Your task to perform on an android device: Add "logitech g910" to the cart on ebay Image 0: 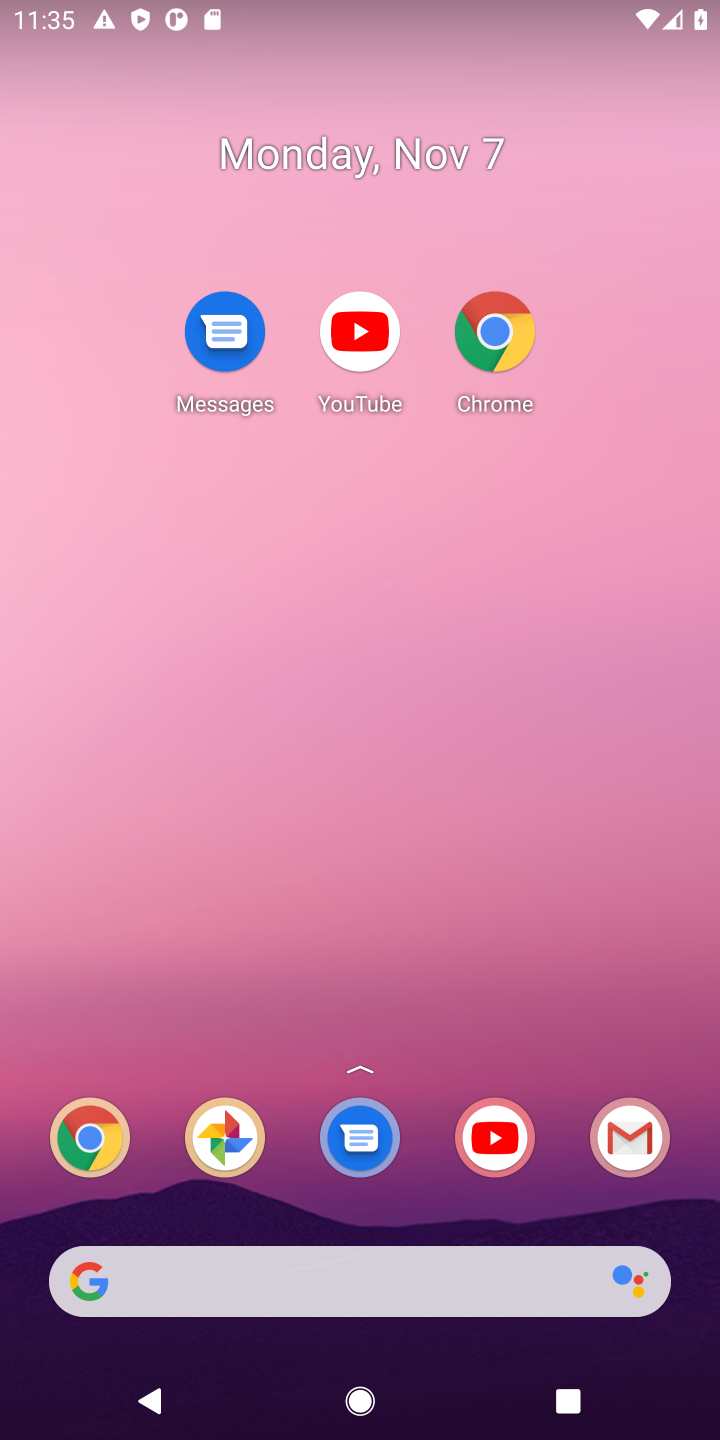
Step 0: drag from (424, 1124) to (454, 401)
Your task to perform on an android device: Add "logitech g910" to the cart on ebay Image 1: 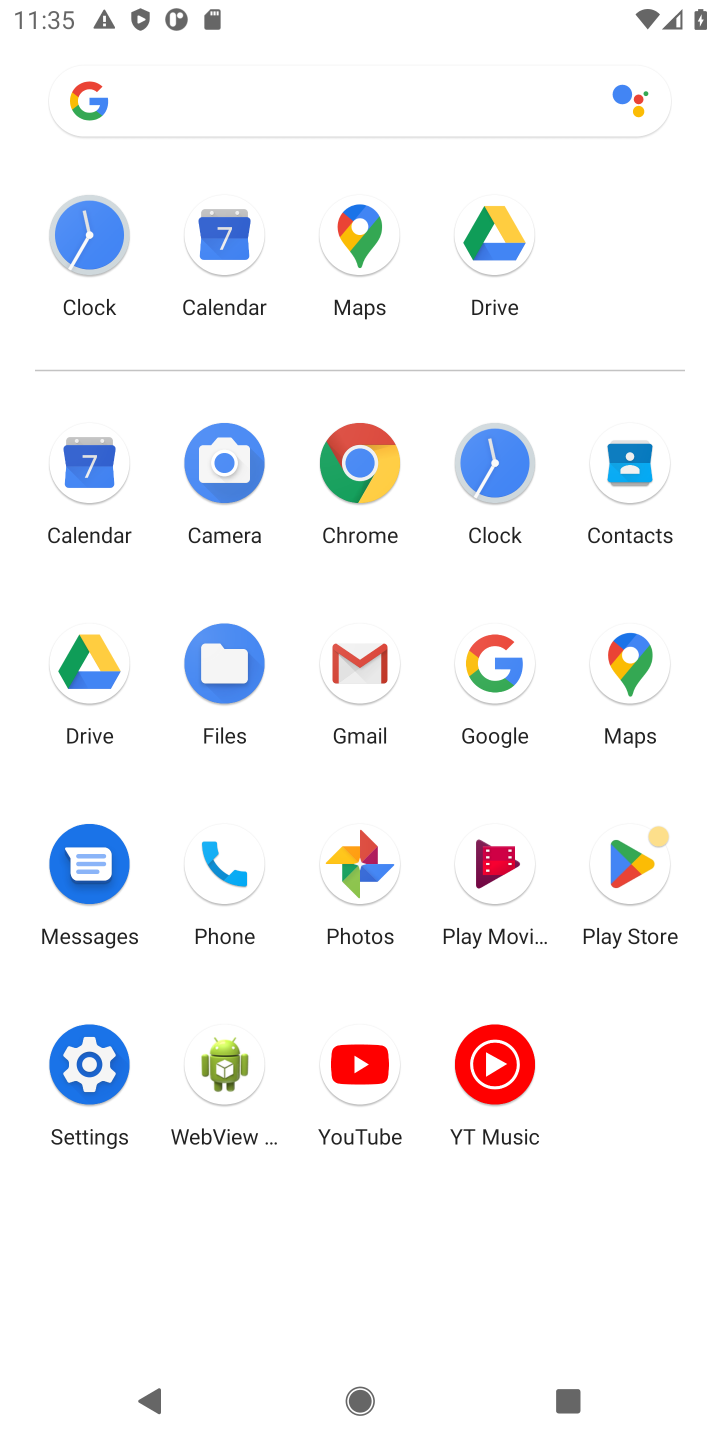
Step 1: click (362, 463)
Your task to perform on an android device: Add "logitech g910" to the cart on ebay Image 2: 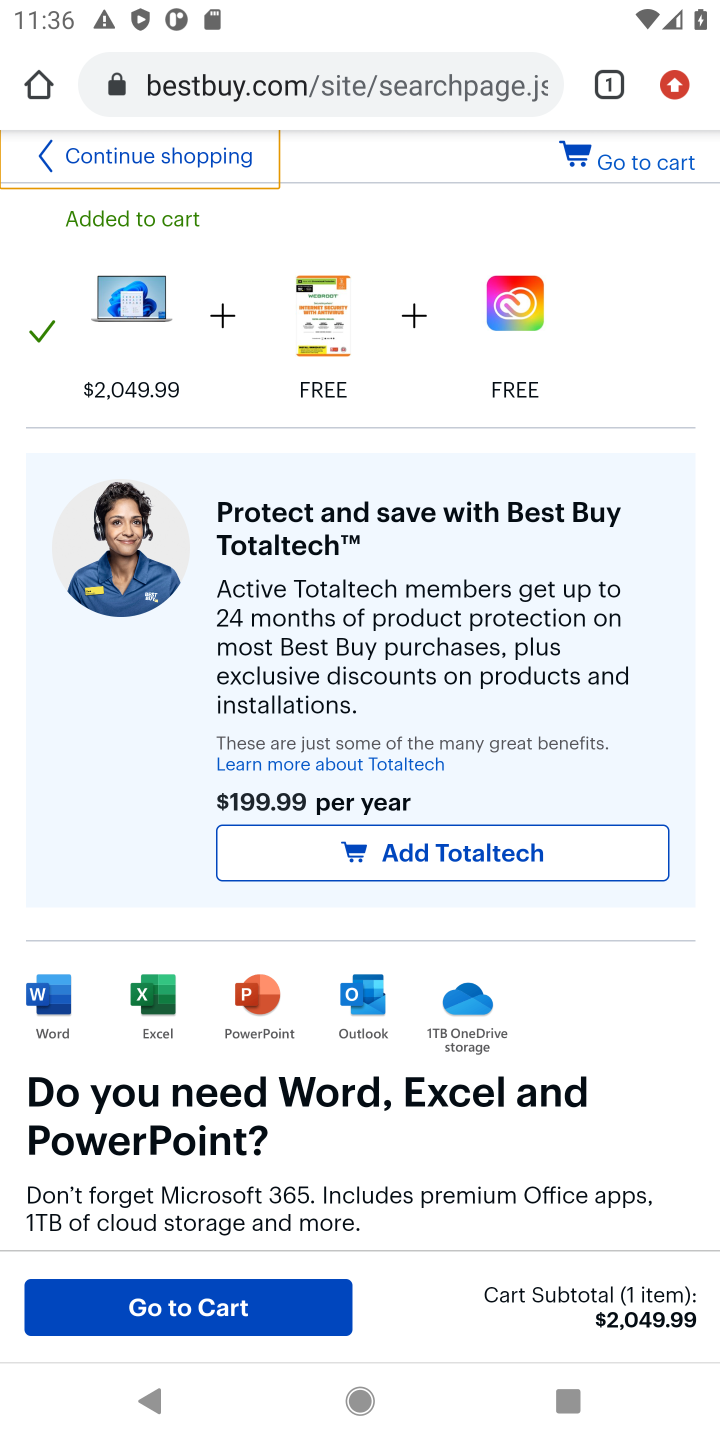
Step 2: click (396, 73)
Your task to perform on an android device: Add "logitech g910" to the cart on ebay Image 3: 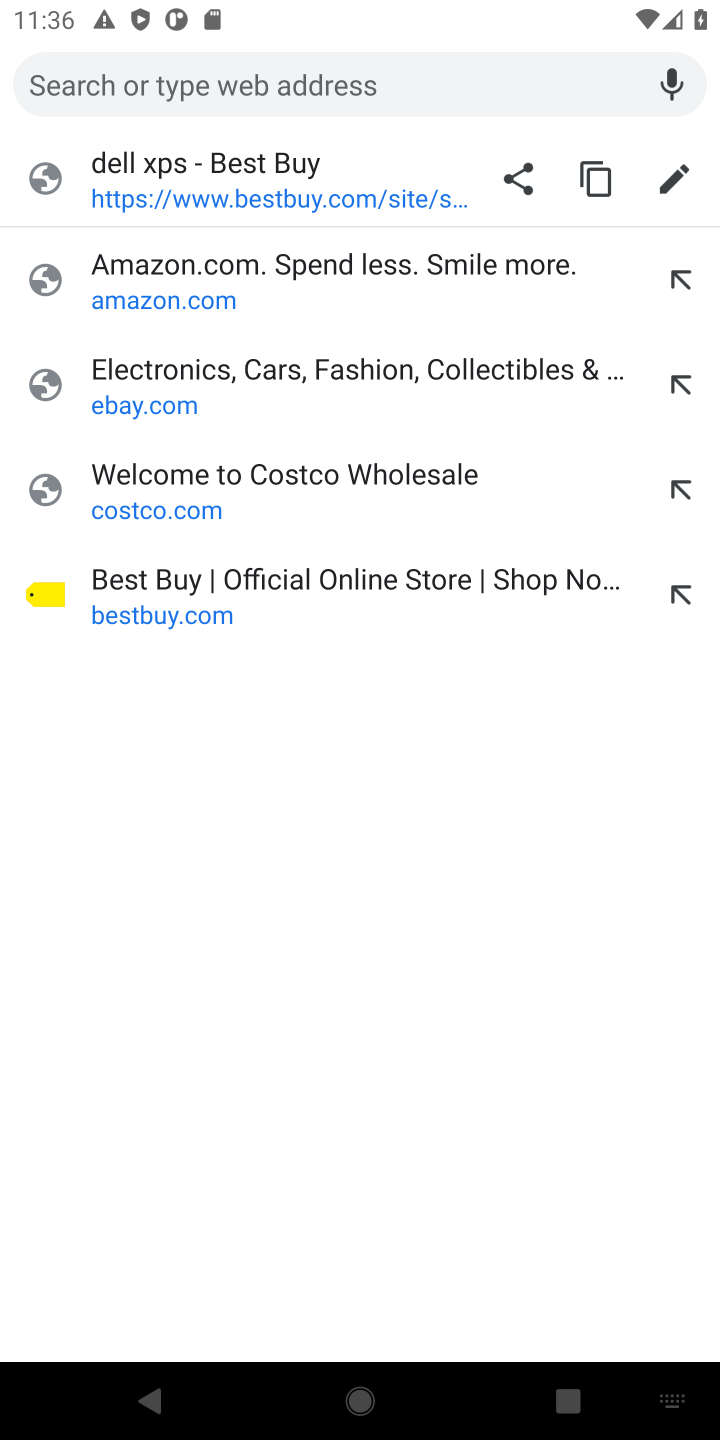
Step 3: type "ebay.com"
Your task to perform on an android device: Add "logitech g910" to the cart on ebay Image 4: 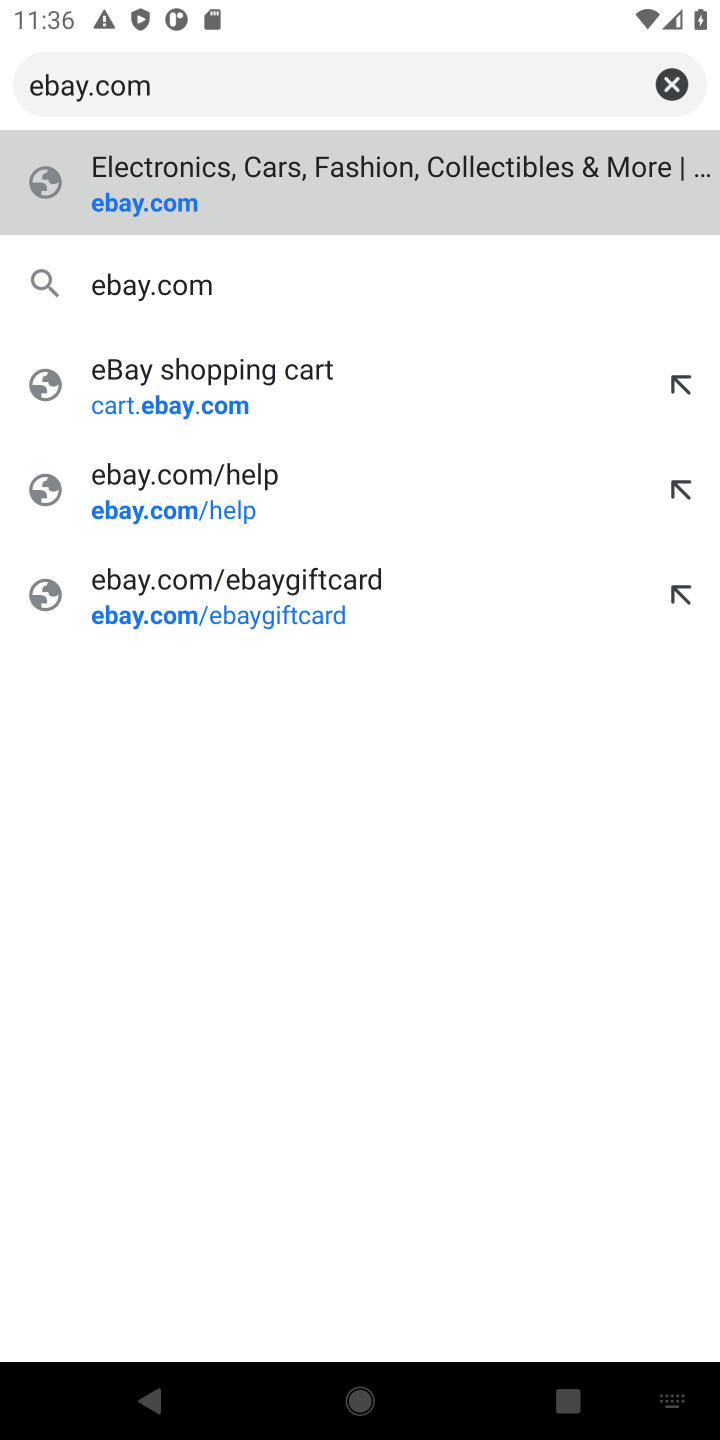
Step 4: press enter
Your task to perform on an android device: Add "logitech g910" to the cart on ebay Image 5: 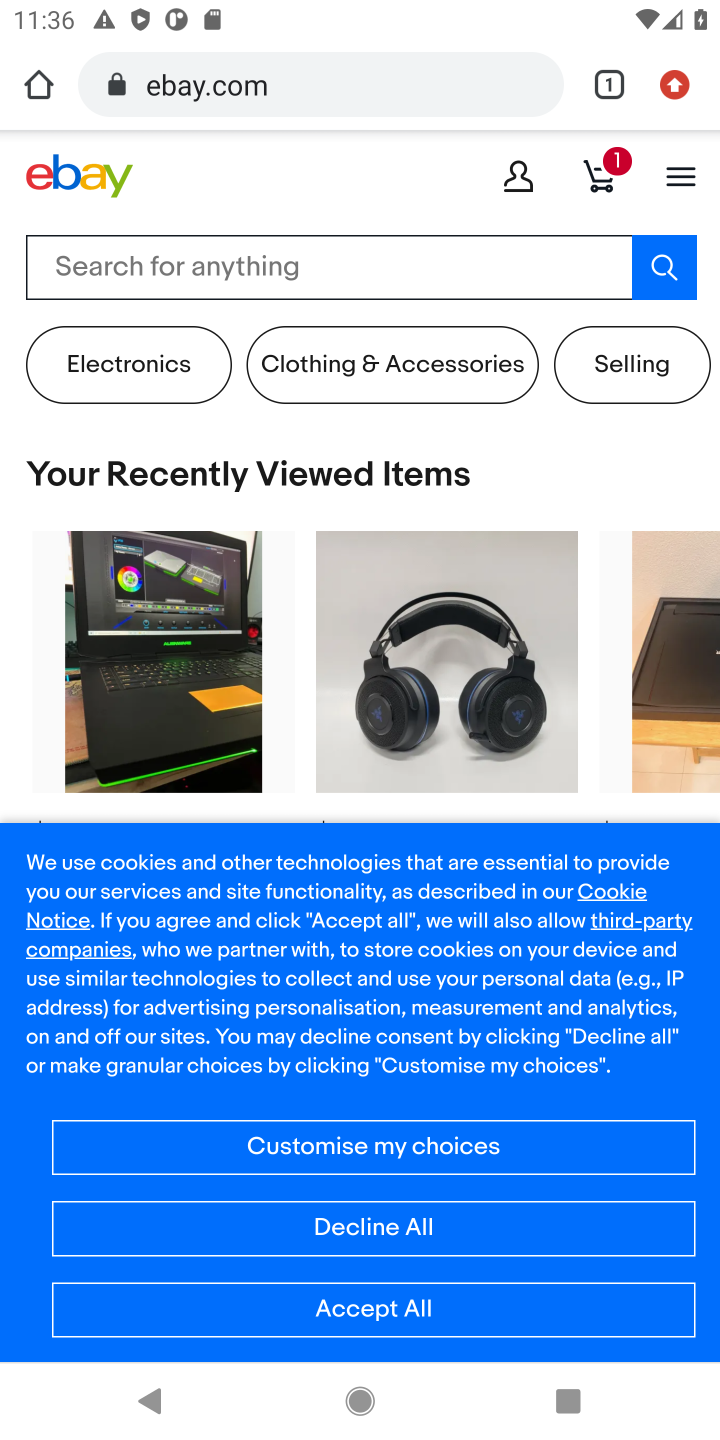
Step 5: click (468, 260)
Your task to perform on an android device: Add "logitech g910" to the cart on ebay Image 6: 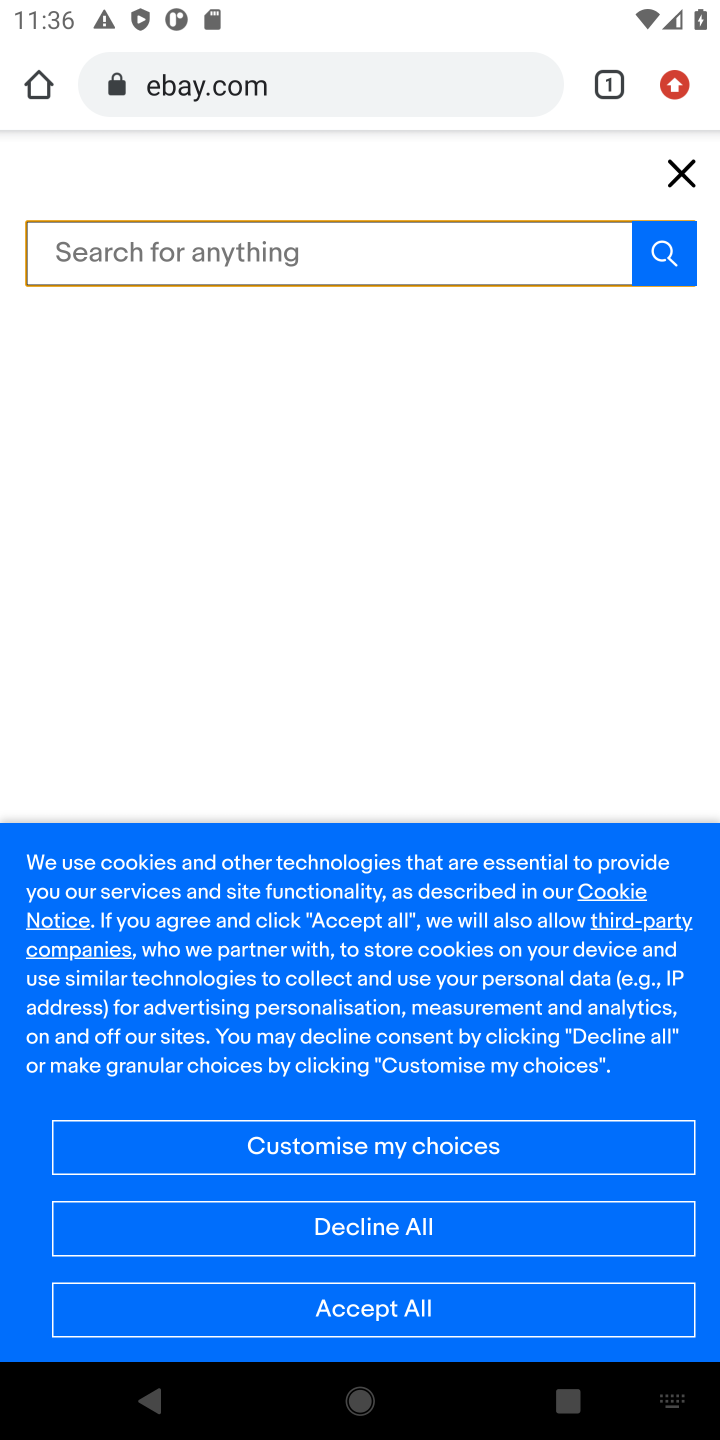
Step 6: type "logitech g910"
Your task to perform on an android device: Add "logitech g910" to the cart on ebay Image 7: 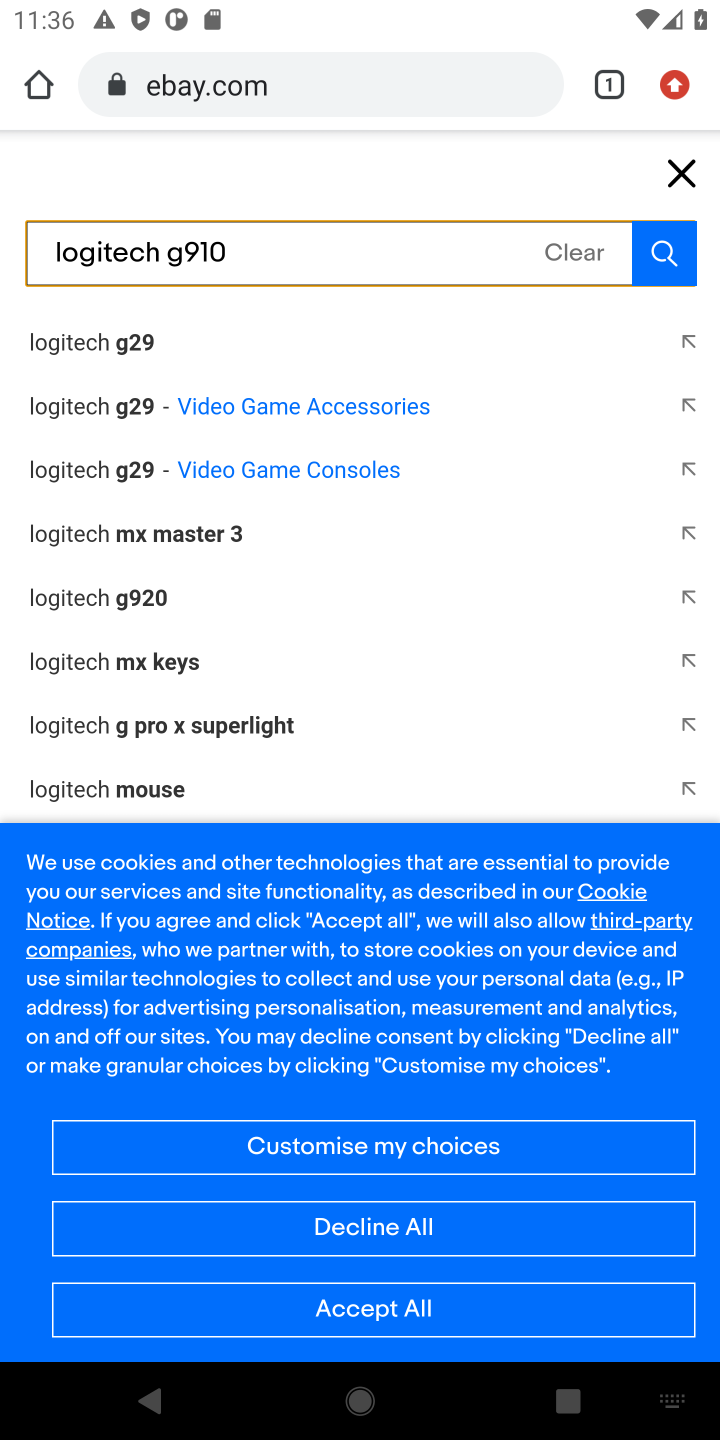
Step 7: press enter
Your task to perform on an android device: Add "logitech g910" to the cart on ebay Image 8: 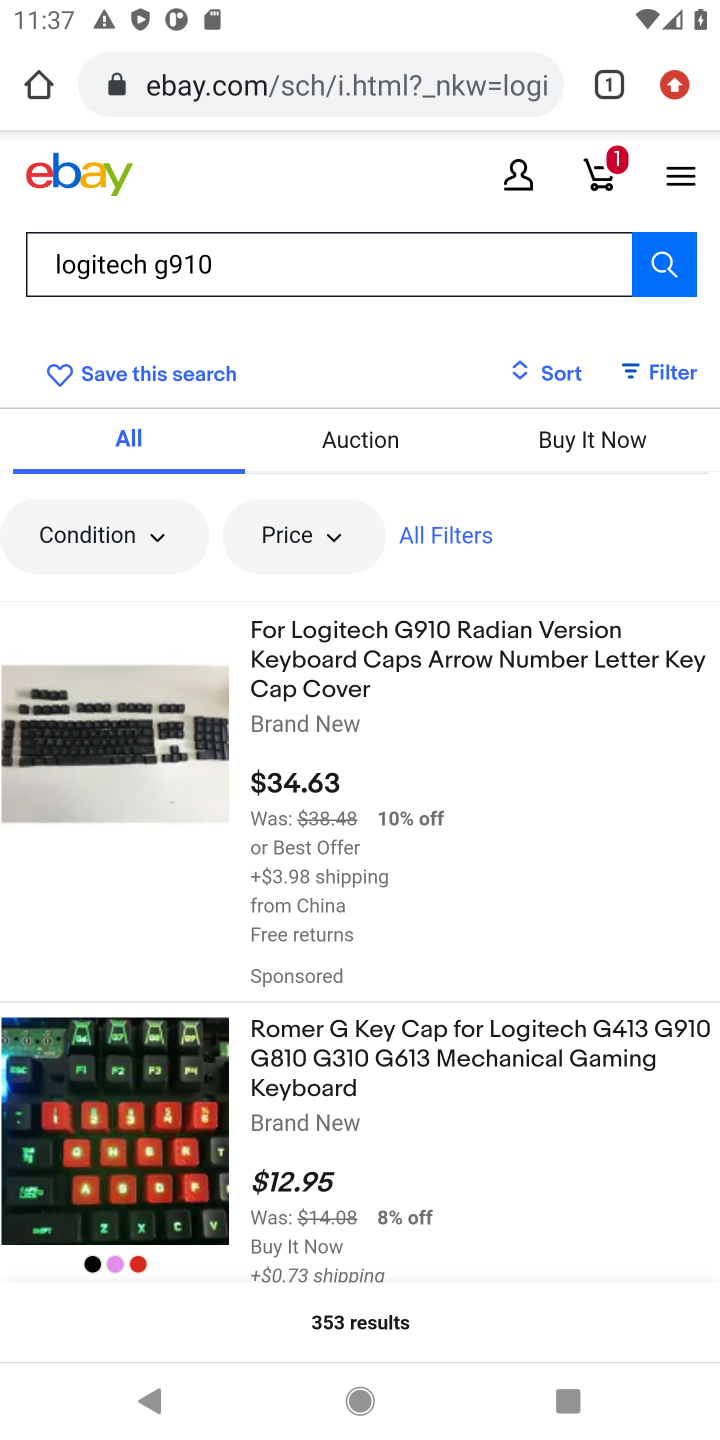
Step 8: click (357, 655)
Your task to perform on an android device: Add "logitech g910" to the cart on ebay Image 9: 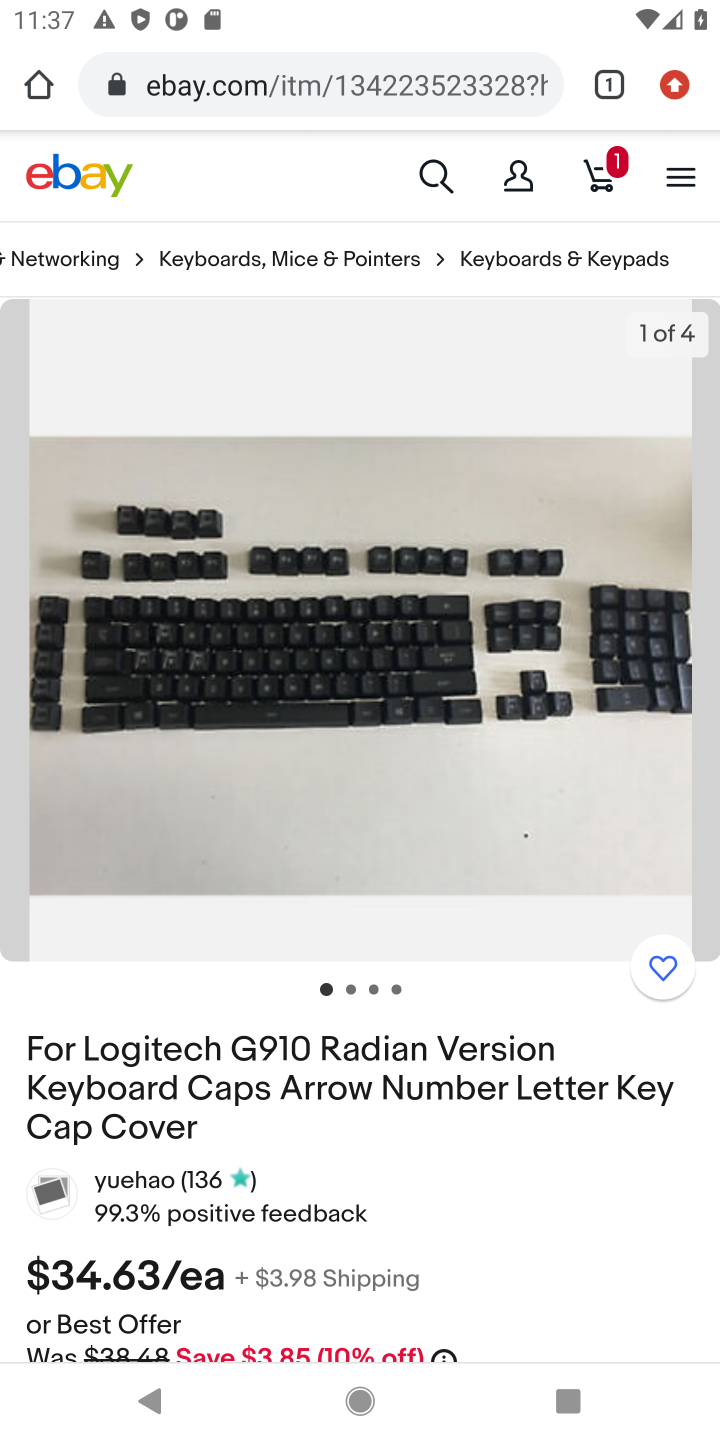
Step 9: drag from (444, 1068) to (511, 300)
Your task to perform on an android device: Add "logitech g910" to the cart on ebay Image 10: 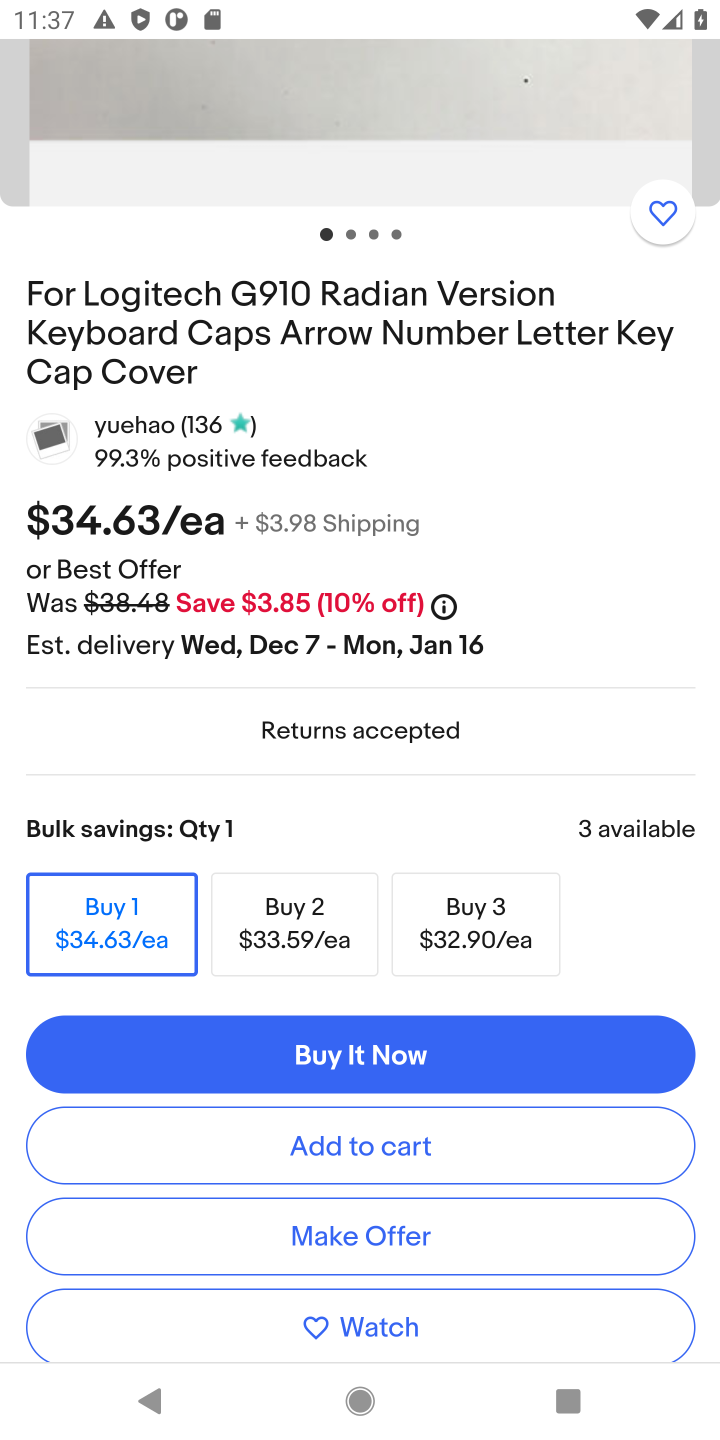
Step 10: click (465, 1144)
Your task to perform on an android device: Add "logitech g910" to the cart on ebay Image 11: 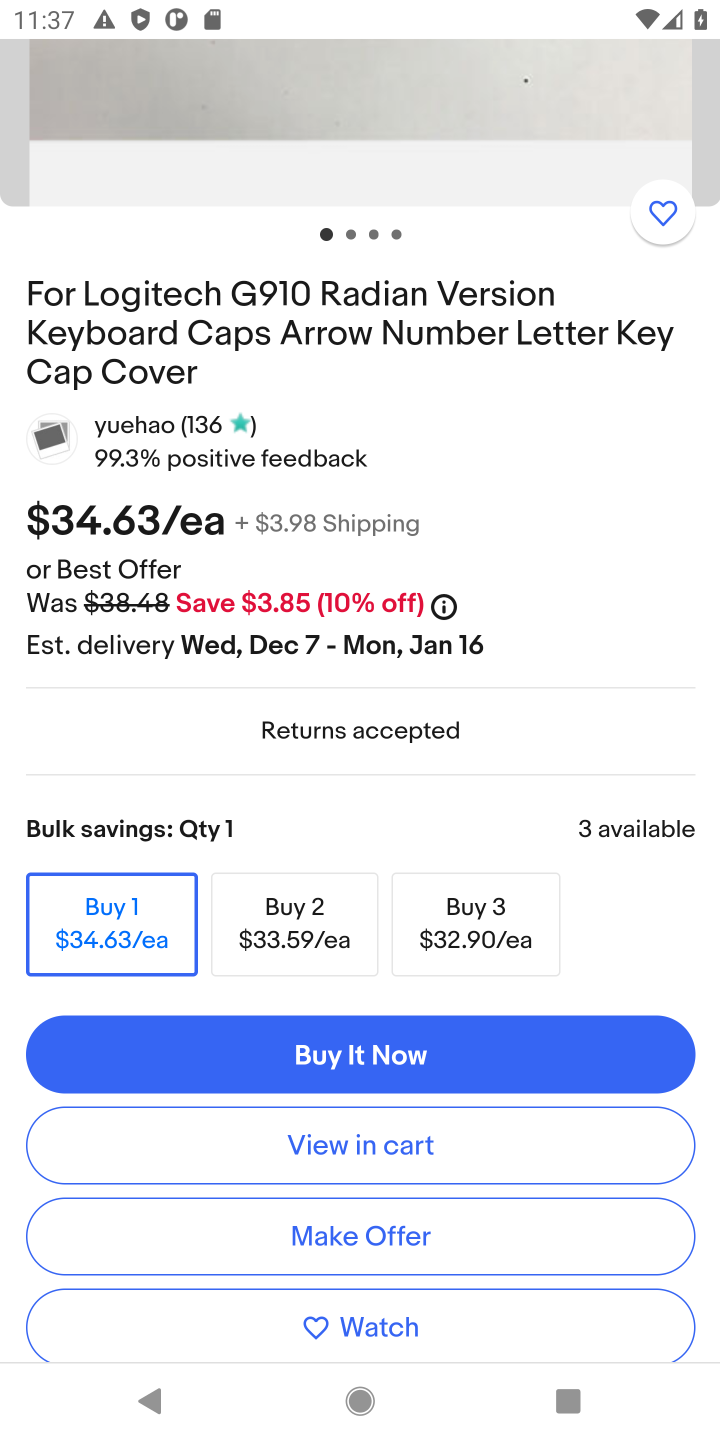
Step 11: task complete